Your task to perform on an android device: Open display settings Image 0: 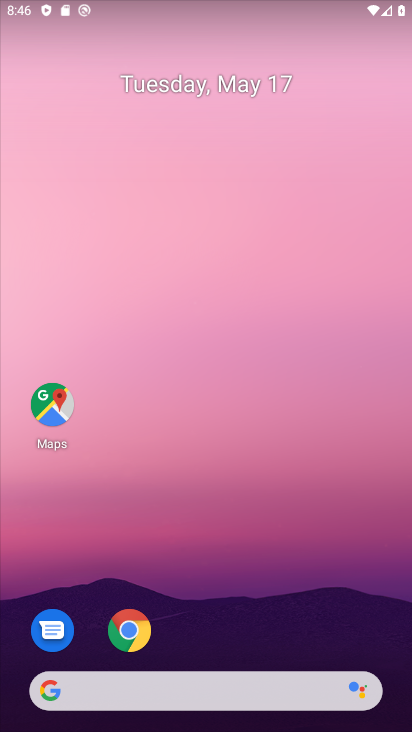
Step 0: drag from (359, 599) to (362, 132)
Your task to perform on an android device: Open display settings Image 1: 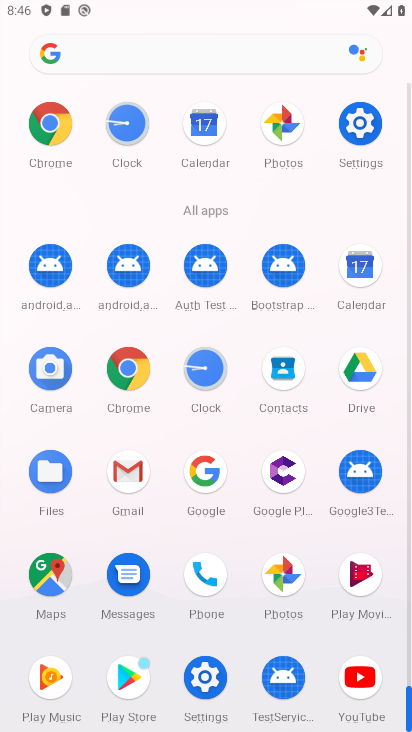
Step 1: click (354, 120)
Your task to perform on an android device: Open display settings Image 2: 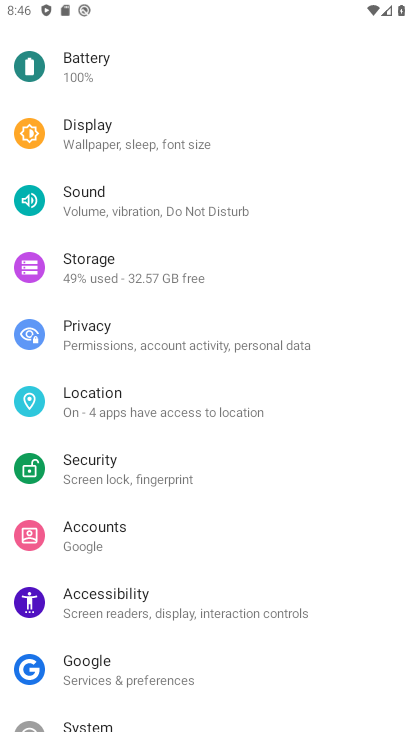
Step 2: drag from (347, 578) to (354, 424)
Your task to perform on an android device: Open display settings Image 3: 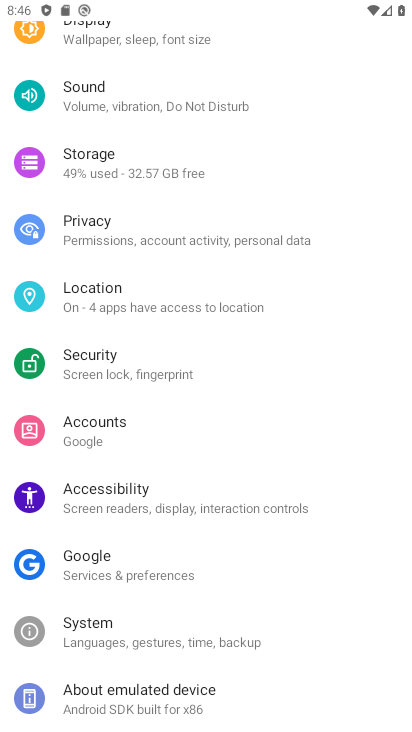
Step 3: drag from (328, 648) to (325, 476)
Your task to perform on an android device: Open display settings Image 4: 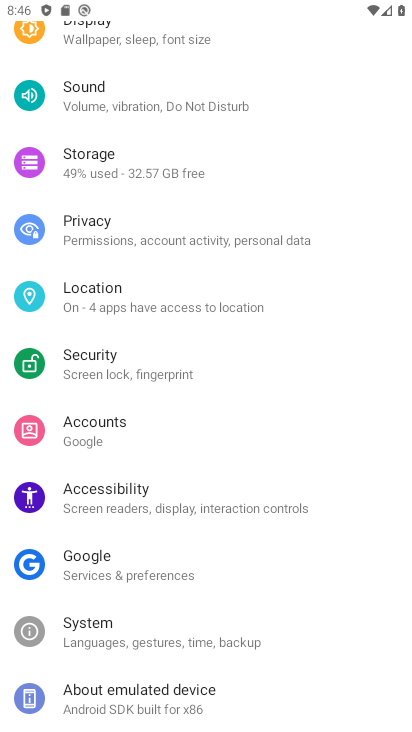
Step 4: drag from (351, 249) to (327, 405)
Your task to perform on an android device: Open display settings Image 5: 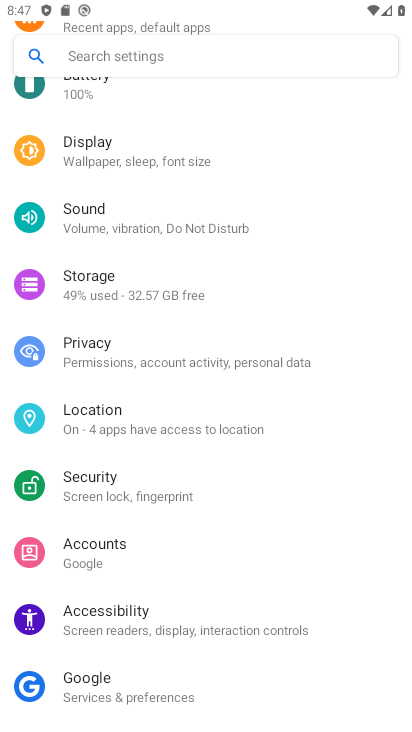
Step 5: drag from (352, 215) to (324, 440)
Your task to perform on an android device: Open display settings Image 6: 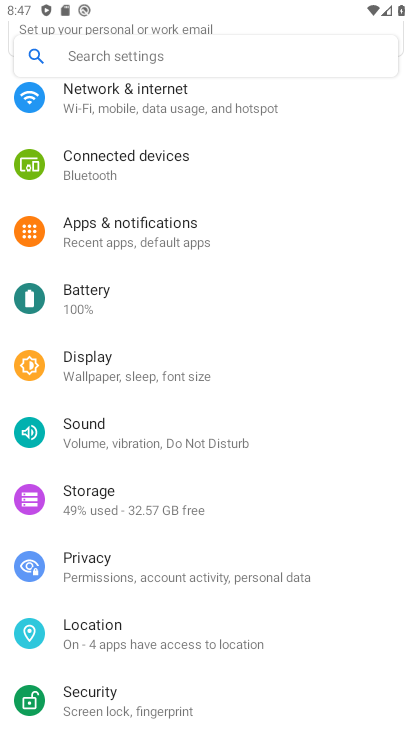
Step 6: drag from (335, 233) to (326, 429)
Your task to perform on an android device: Open display settings Image 7: 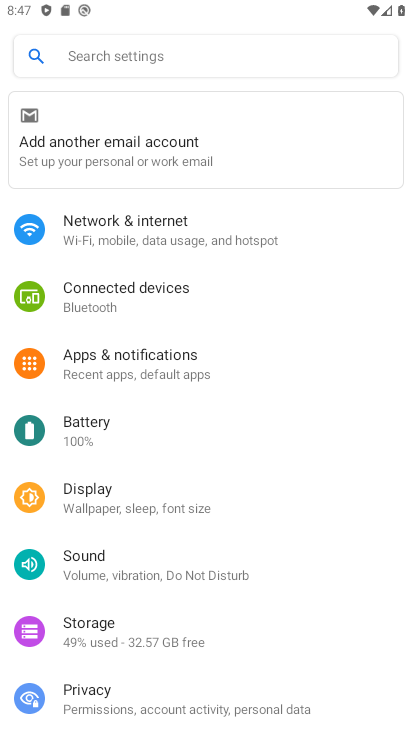
Step 7: drag from (346, 250) to (339, 463)
Your task to perform on an android device: Open display settings Image 8: 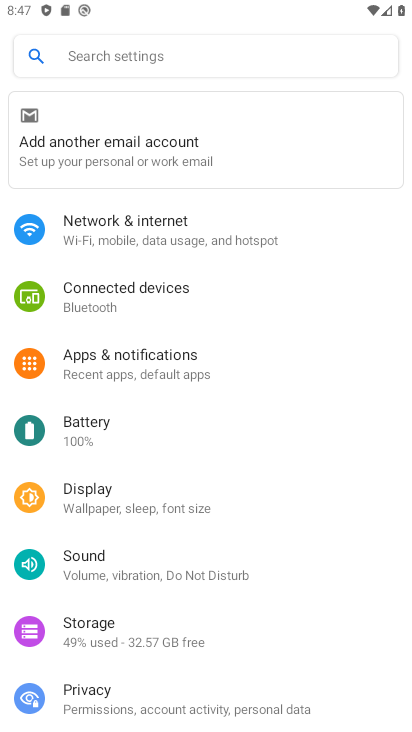
Step 8: drag from (338, 583) to (343, 457)
Your task to perform on an android device: Open display settings Image 9: 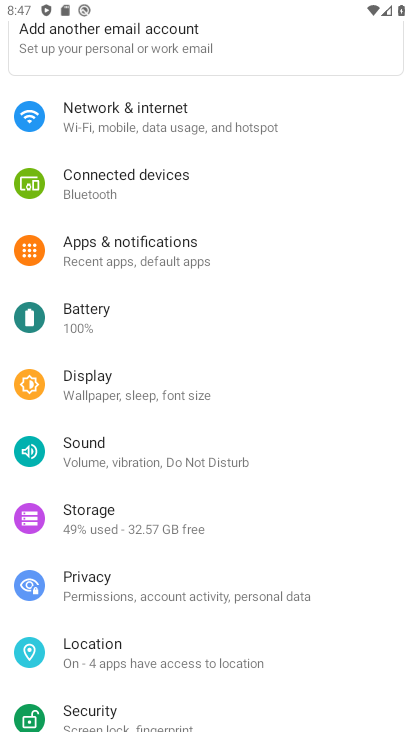
Step 9: click (130, 384)
Your task to perform on an android device: Open display settings Image 10: 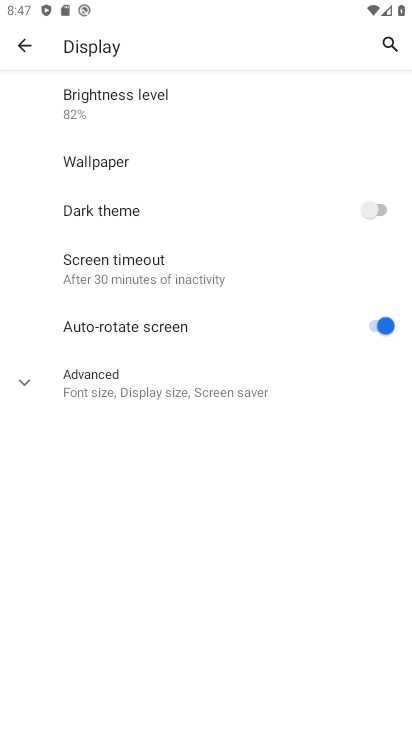
Step 10: click (128, 384)
Your task to perform on an android device: Open display settings Image 11: 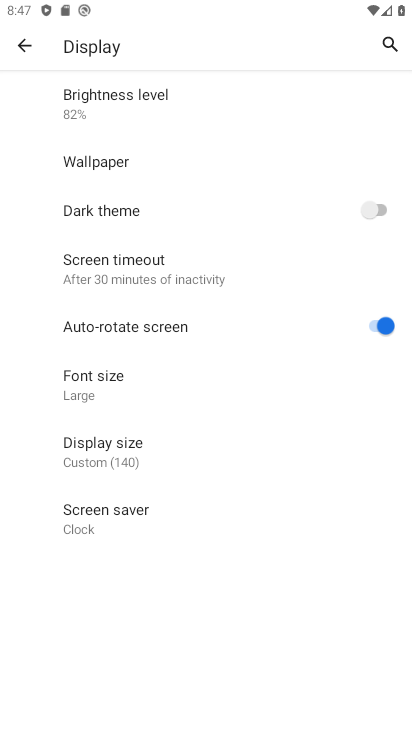
Step 11: task complete